Your task to perform on an android device: Is it going to rain tomorrow? Image 0: 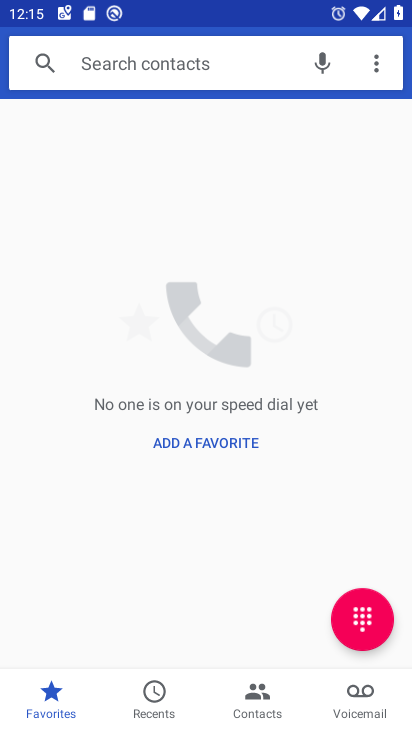
Step 0: press home button
Your task to perform on an android device: Is it going to rain tomorrow? Image 1: 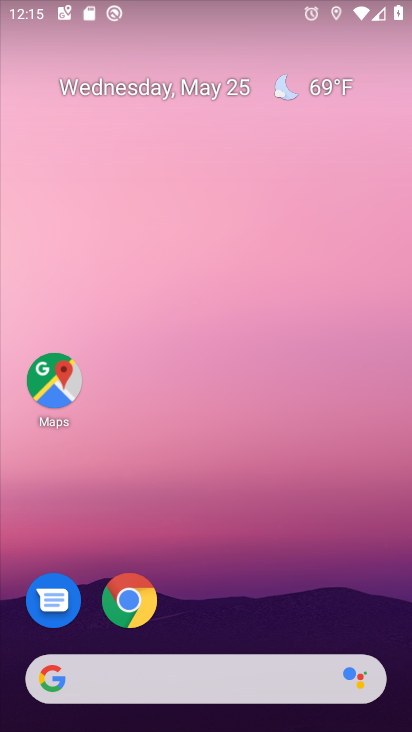
Step 1: click (252, 684)
Your task to perform on an android device: Is it going to rain tomorrow? Image 2: 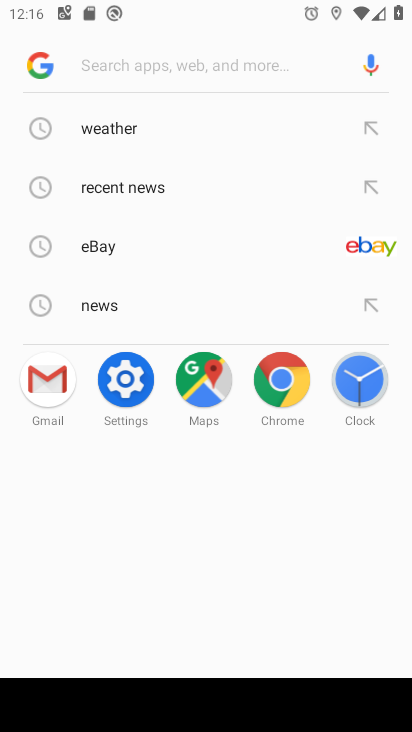
Step 2: click (123, 140)
Your task to perform on an android device: Is it going to rain tomorrow? Image 3: 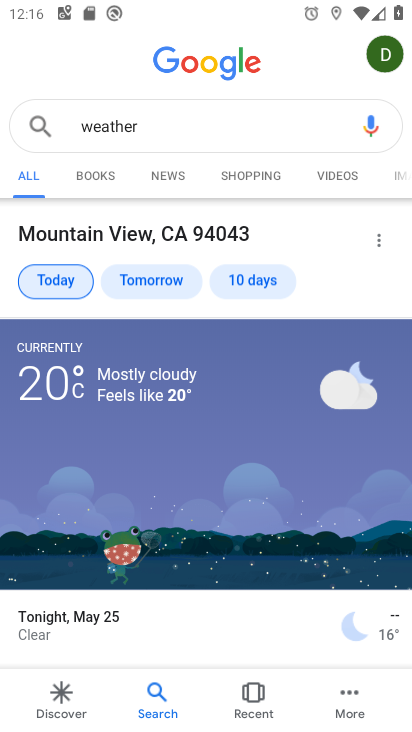
Step 3: click (149, 286)
Your task to perform on an android device: Is it going to rain tomorrow? Image 4: 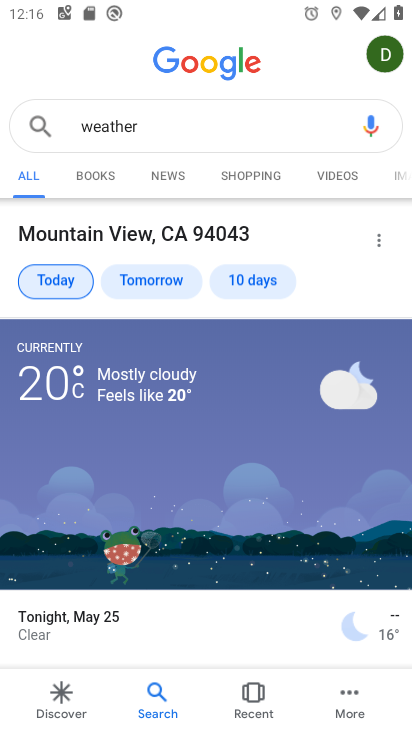
Step 4: click (149, 286)
Your task to perform on an android device: Is it going to rain tomorrow? Image 5: 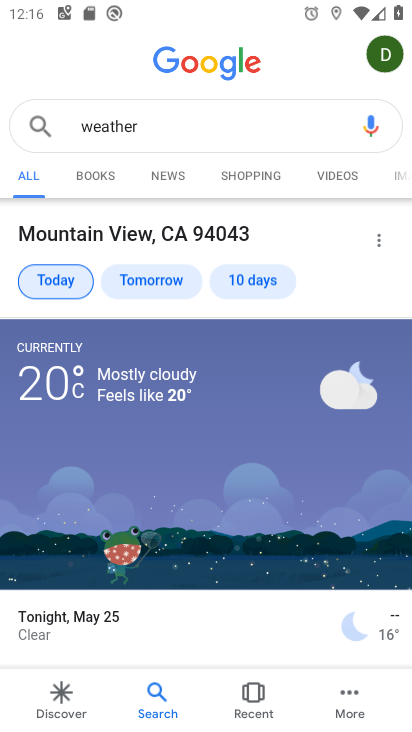
Step 5: click (149, 286)
Your task to perform on an android device: Is it going to rain tomorrow? Image 6: 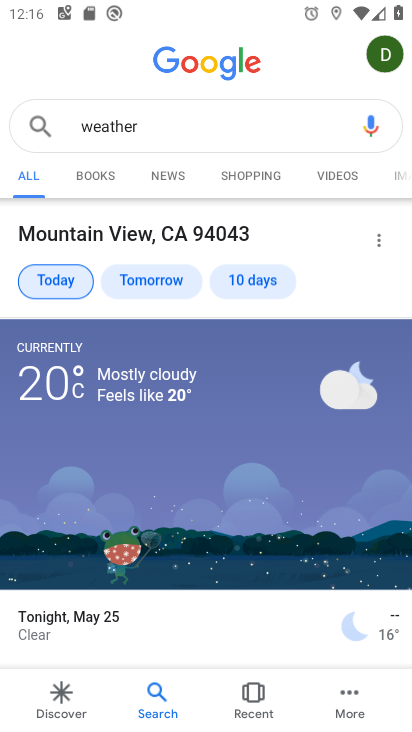
Step 6: click (145, 294)
Your task to perform on an android device: Is it going to rain tomorrow? Image 7: 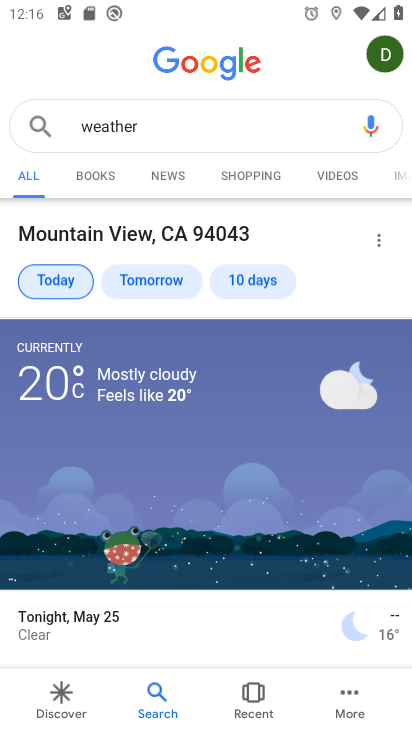
Step 7: click (145, 294)
Your task to perform on an android device: Is it going to rain tomorrow? Image 8: 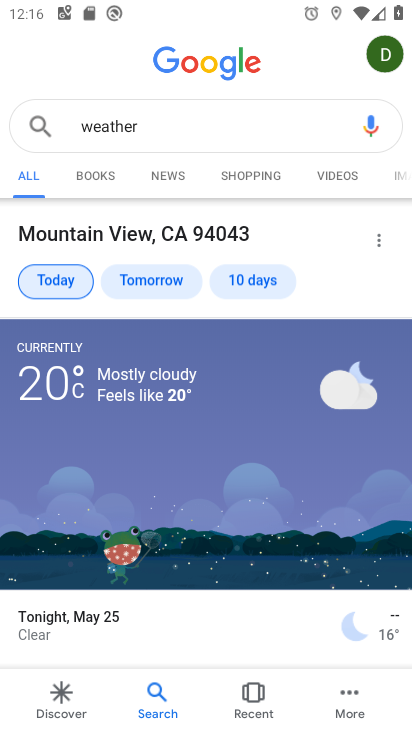
Step 8: task complete